Your task to perform on an android device: set the stopwatch Image 0: 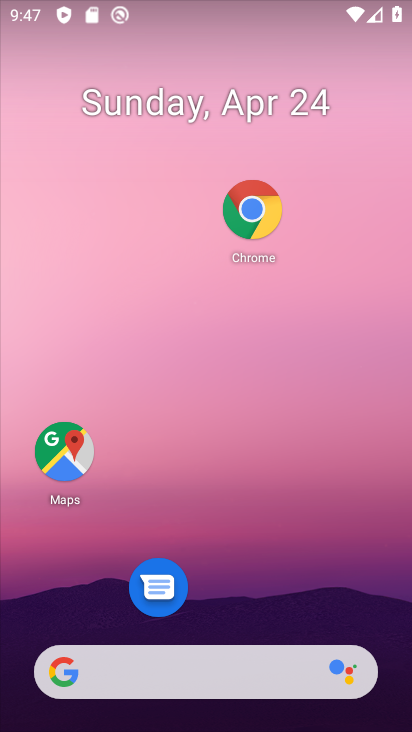
Step 0: drag from (222, 606) to (199, 72)
Your task to perform on an android device: set the stopwatch Image 1: 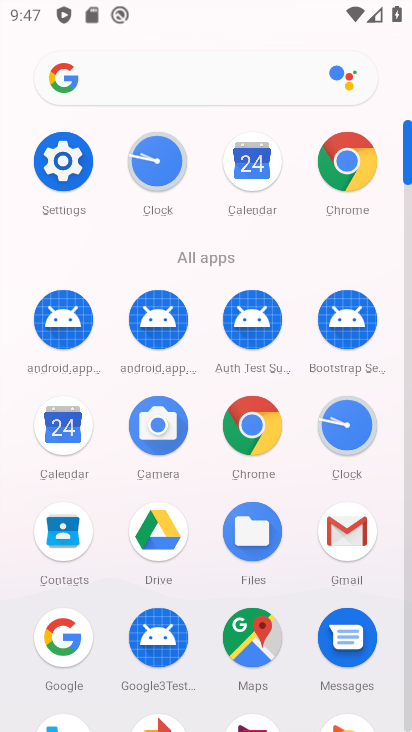
Step 1: click (345, 414)
Your task to perform on an android device: set the stopwatch Image 2: 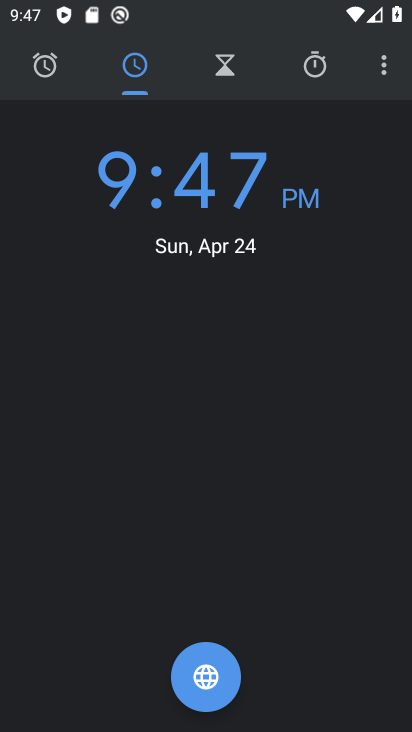
Step 2: click (314, 59)
Your task to perform on an android device: set the stopwatch Image 3: 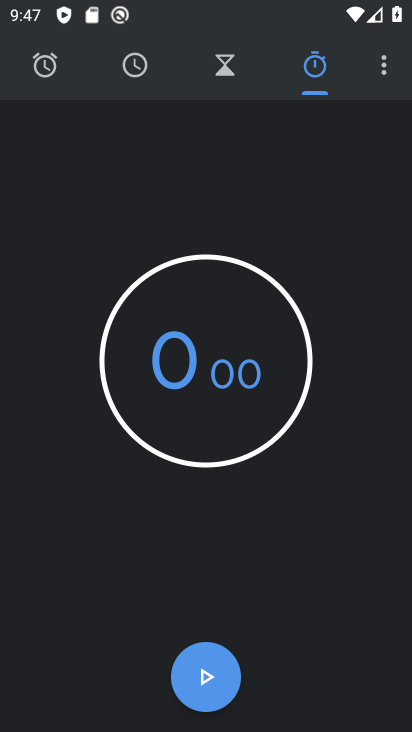
Step 3: click (200, 673)
Your task to perform on an android device: set the stopwatch Image 4: 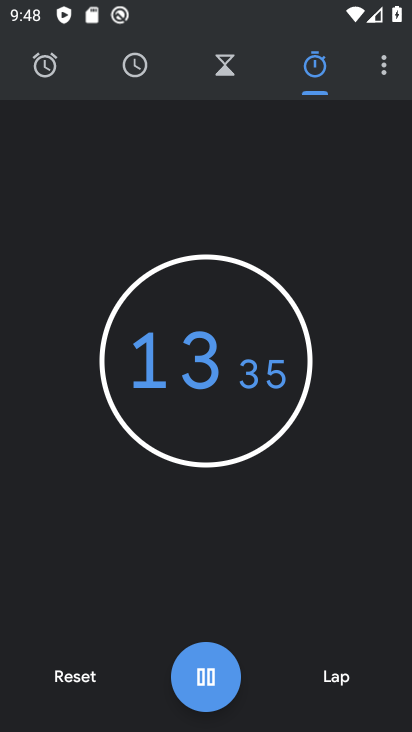
Step 4: click (71, 673)
Your task to perform on an android device: set the stopwatch Image 5: 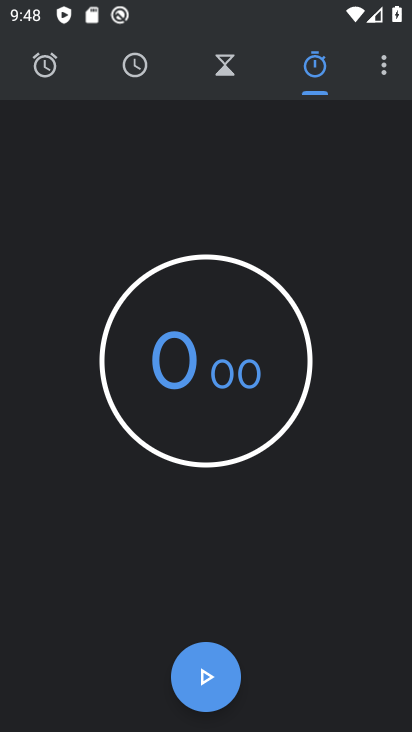
Step 5: task complete